Your task to perform on an android device: Open sound settings Image 0: 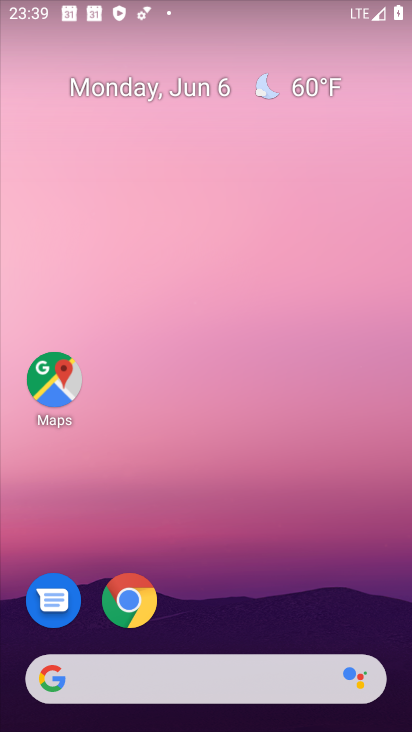
Step 0: drag from (242, 724) to (244, 162)
Your task to perform on an android device: Open sound settings Image 1: 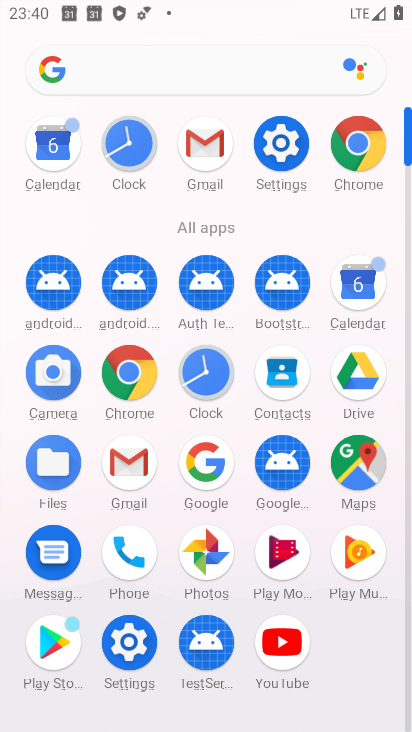
Step 1: click (271, 148)
Your task to perform on an android device: Open sound settings Image 2: 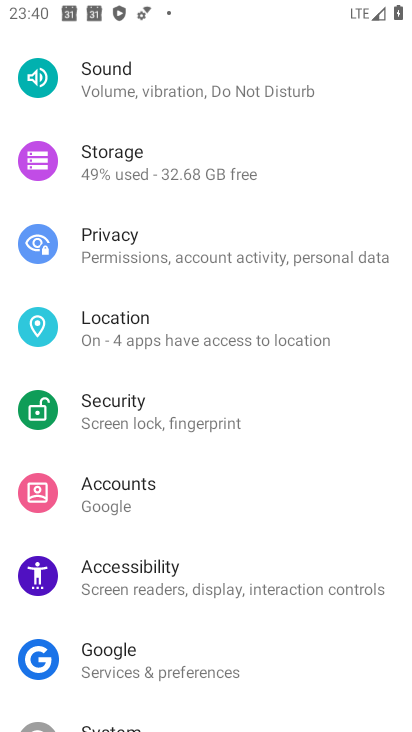
Step 2: click (110, 86)
Your task to perform on an android device: Open sound settings Image 3: 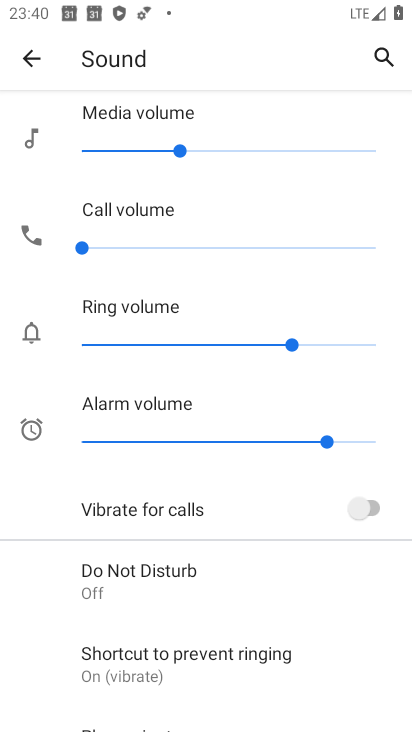
Step 3: task complete